Your task to perform on an android device: turn on bluetooth scan Image 0: 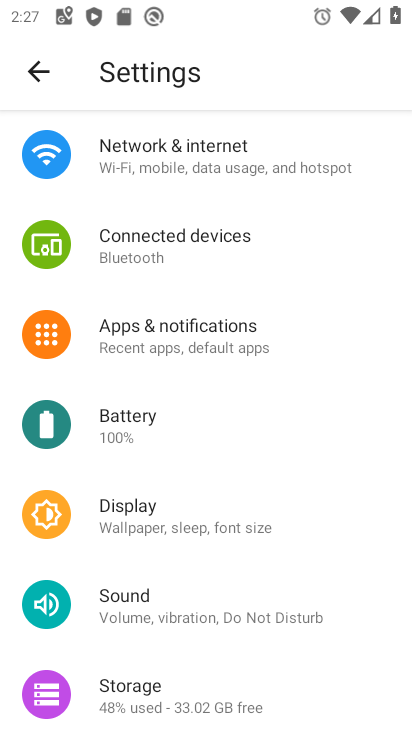
Step 0: drag from (242, 489) to (182, 131)
Your task to perform on an android device: turn on bluetooth scan Image 1: 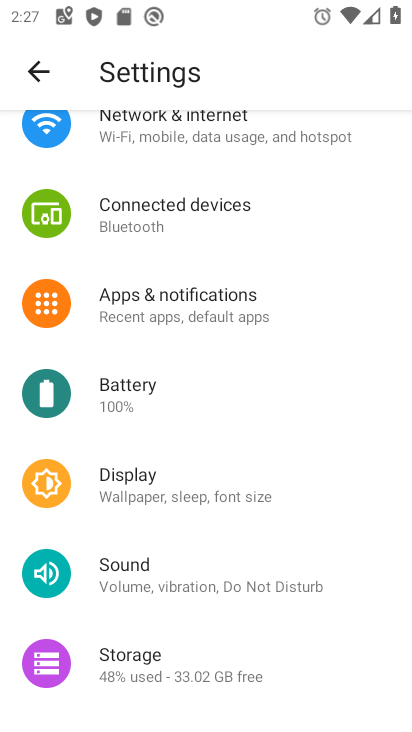
Step 1: drag from (253, 483) to (250, 91)
Your task to perform on an android device: turn on bluetooth scan Image 2: 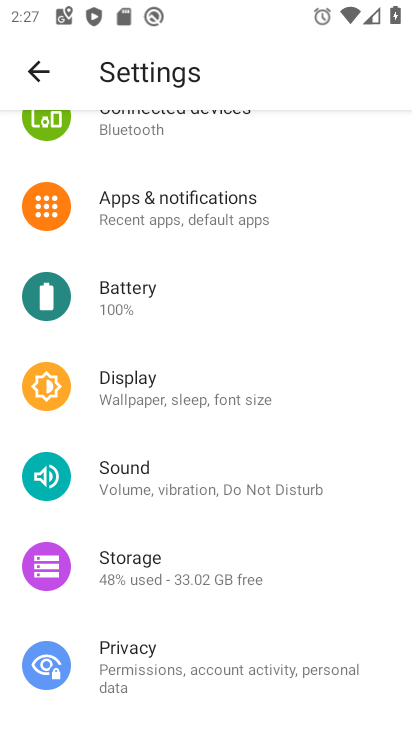
Step 2: drag from (255, 591) to (247, 153)
Your task to perform on an android device: turn on bluetooth scan Image 3: 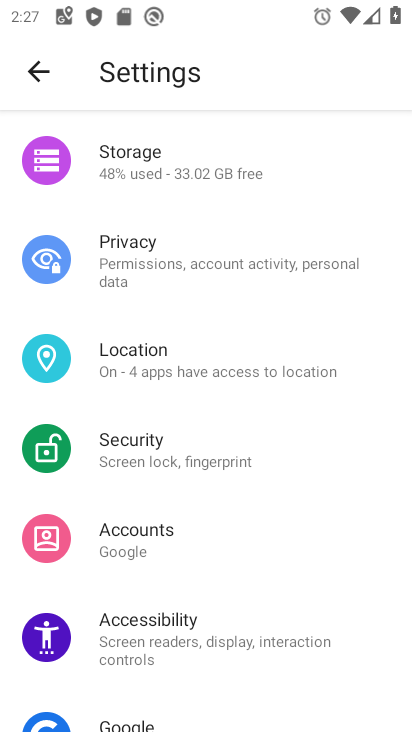
Step 3: click (160, 365)
Your task to perform on an android device: turn on bluetooth scan Image 4: 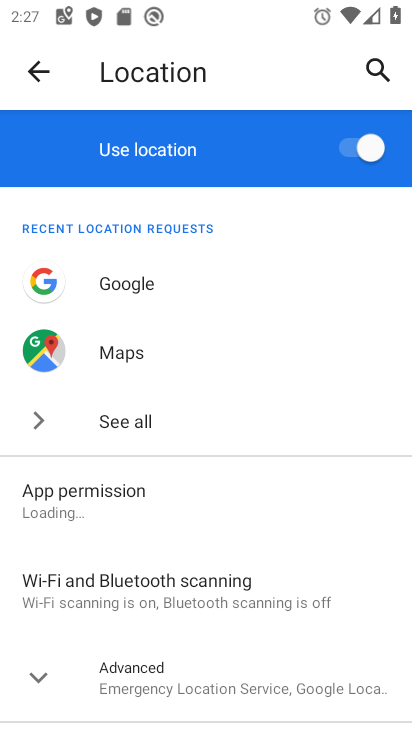
Step 4: click (221, 605)
Your task to perform on an android device: turn on bluetooth scan Image 5: 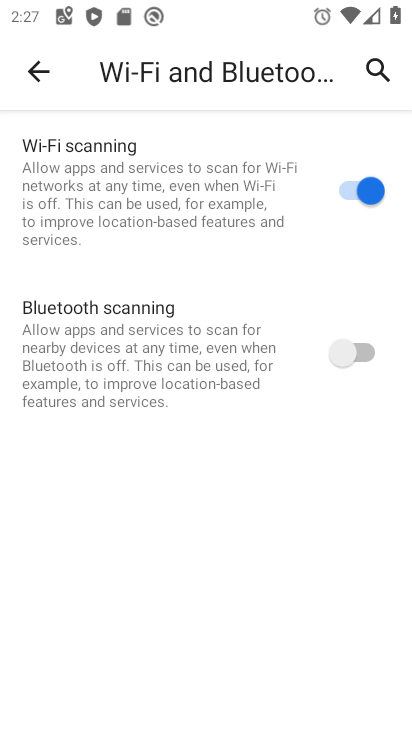
Step 5: click (368, 349)
Your task to perform on an android device: turn on bluetooth scan Image 6: 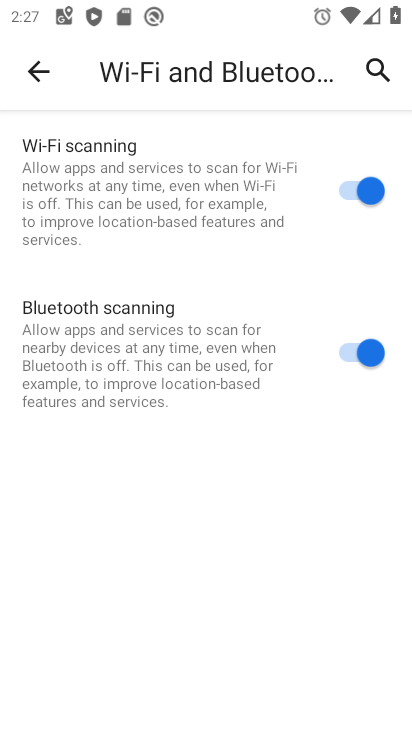
Step 6: task complete